Your task to perform on an android device: Go to network settings Image 0: 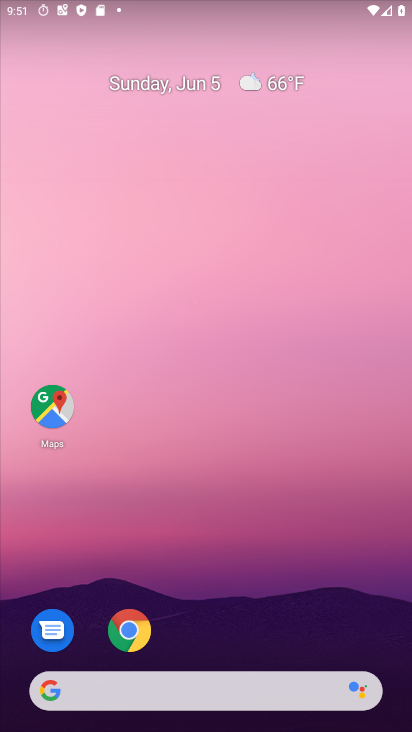
Step 0: drag from (188, 718) to (205, 127)
Your task to perform on an android device: Go to network settings Image 1: 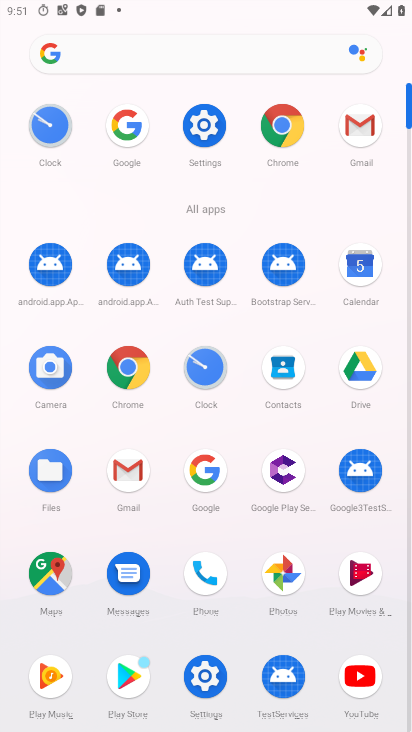
Step 1: click (203, 133)
Your task to perform on an android device: Go to network settings Image 2: 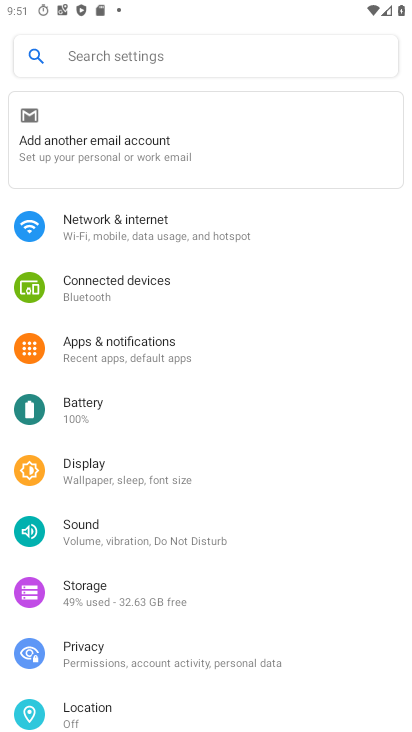
Step 2: click (97, 222)
Your task to perform on an android device: Go to network settings Image 3: 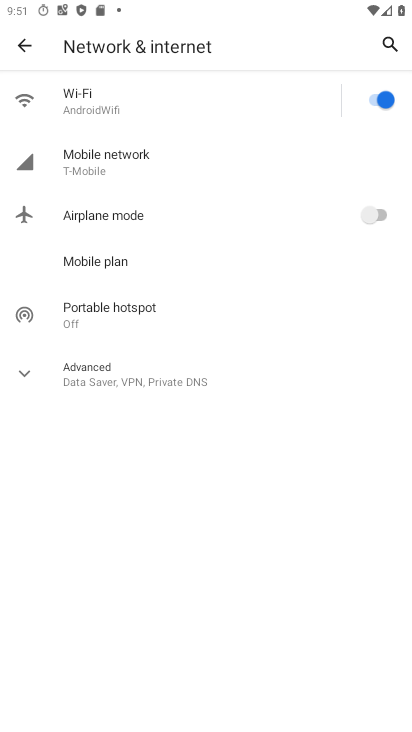
Step 3: click (92, 158)
Your task to perform on an android device: Go to network settings Image 4: 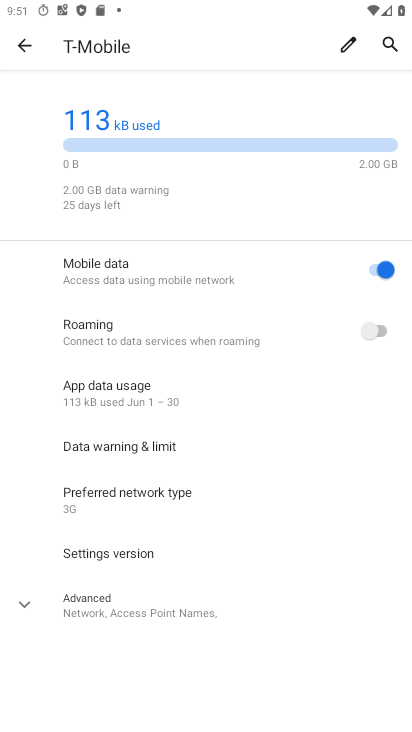
Step 4: task complete